Your task to perform on an android device: turn off priority inbox in the gmail app Image 0: 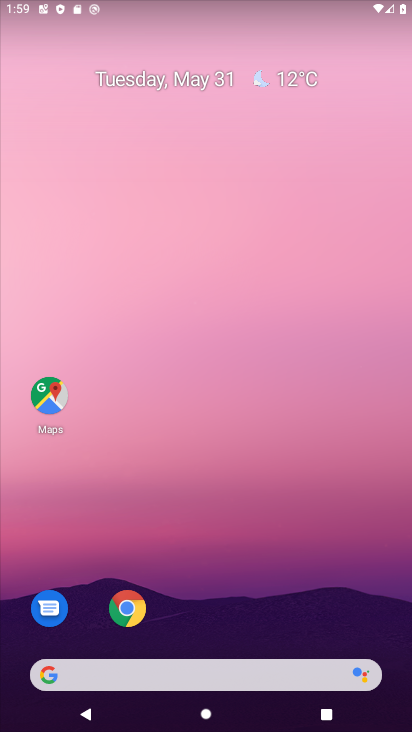
Step 0: drag from (275, 568) to (270, 173)
Your task to perform on an android device: turn off priority inbox in the gmail app Image 1: 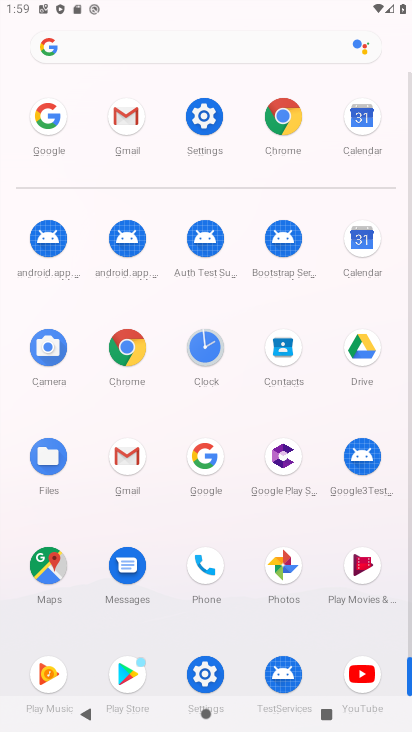
Step 1: click (139, 462)
Your task to perform on an android device: turn off priority inbox in the gmail app Image 2: 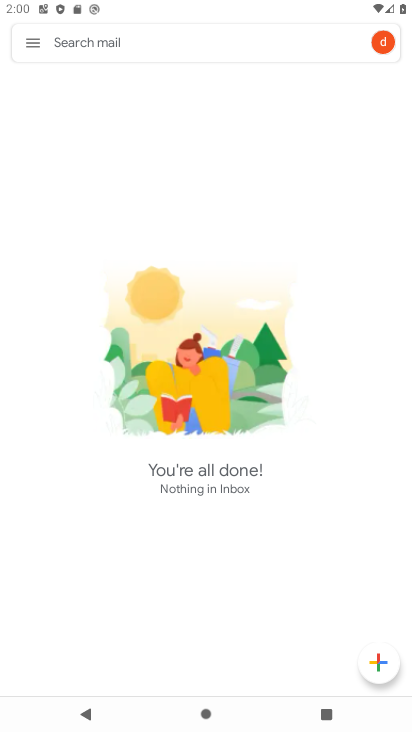
Step 2: click (42, 41)
Your task to perform on an android device: turn off priority inbox in the gmail app Image 3: 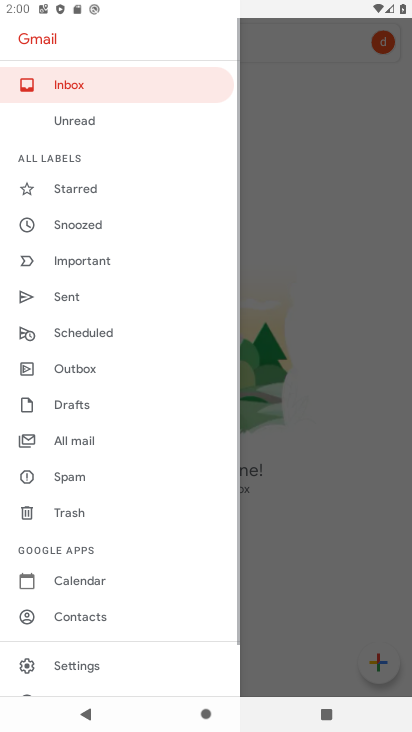
Step 3: drag from (142, 568) to (186, 187)
Your task to perform on an android device: turn off priority inbox in the gmail app Image 4: 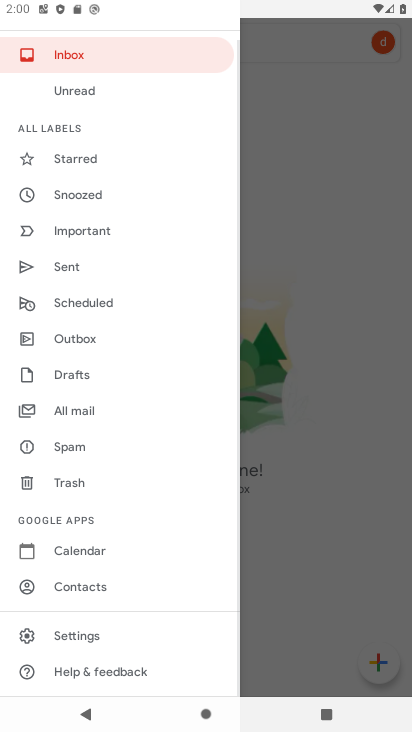
Step 4: click (137, 651)
Your task to perform on an android device: turn off priority inbox in the gmail app Image 5: 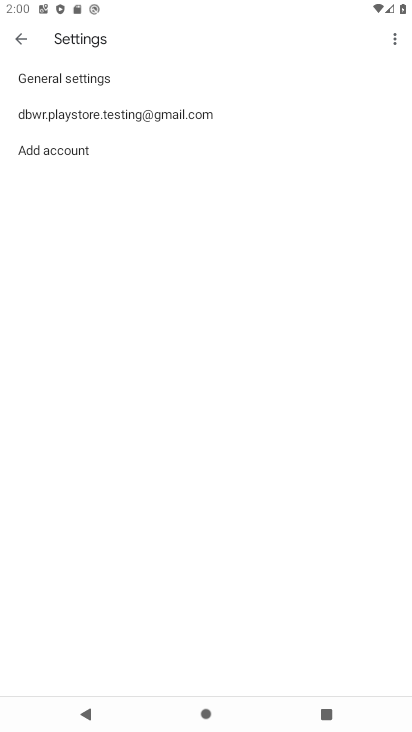
Step 5: click (181, 112)
Your task to perform on an android device: turn off priority inbox in the gmail app Image 6: 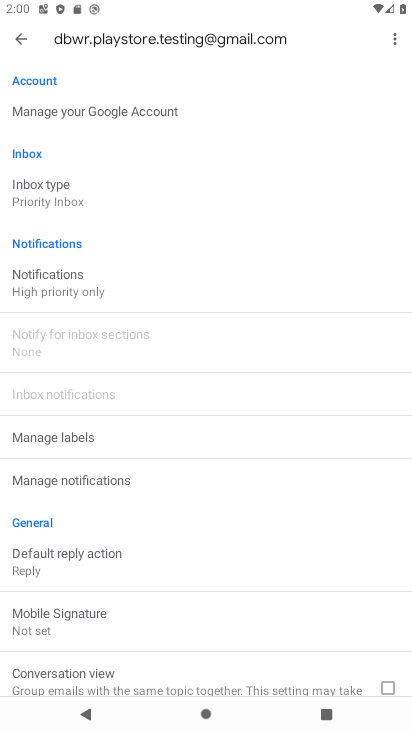
Step 6: click (104, 200)
Your task to perform on an android device: turn off priority inbox in the gmail app Image 7: 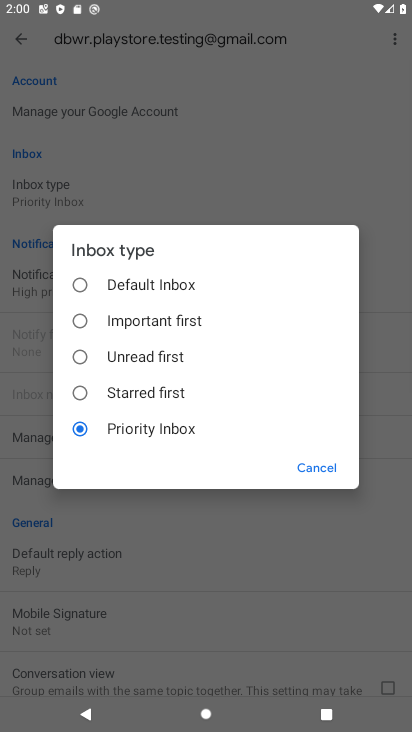
Step 7: click (126, 282)
Your task to perform on an android device: turn off priority inbox in the gmail app Image 8: 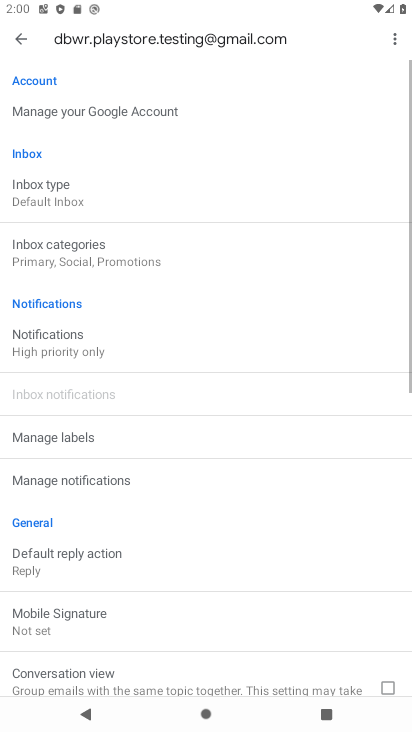
Step 8: task complete